Your task to perform on an android device: toggle data saver in the chrome app Image 0: 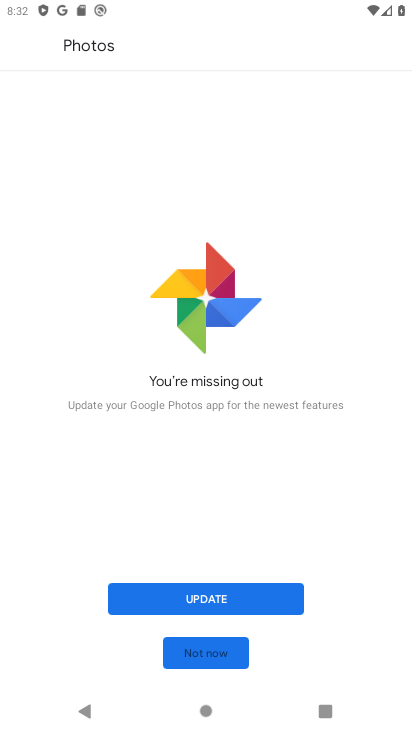
Step 0: click (176, 648)
Your task to perform on an android device: toggle data saver in the chrome app Image 1: 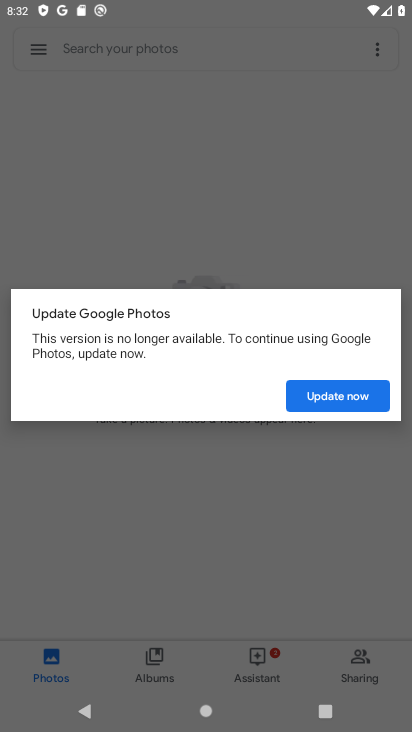
Step 1: click (225, 478)
Your task to perform on an android device: toggle data saver in the chrome app Image 2: 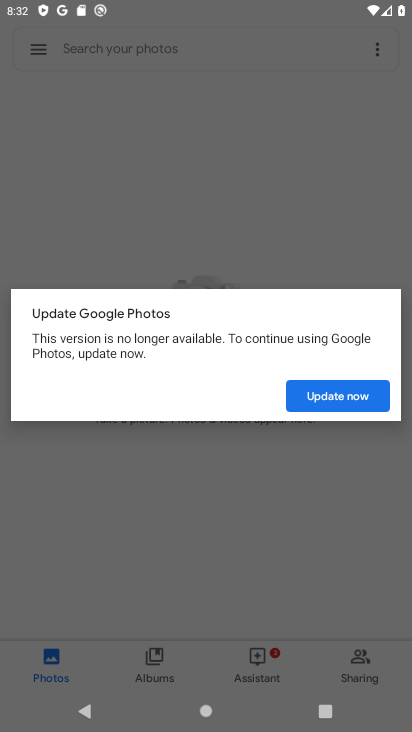
Step 2: click (199, 181)
Your task to perform on an android device: toggle data saver in the chrome app Image 3: 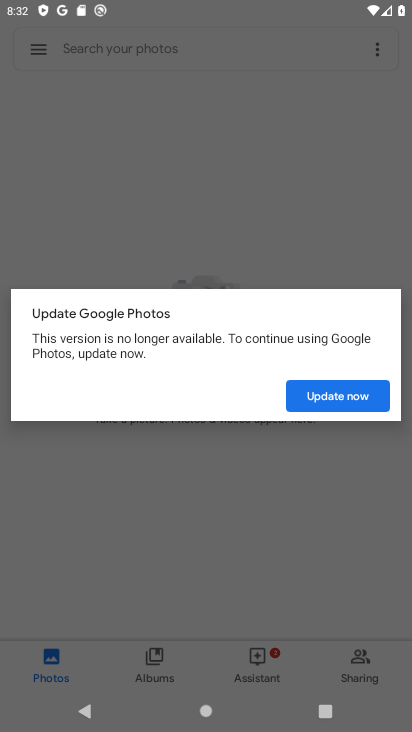
Step 3: click (204, 180)
Your task to perform on an android device: toggle data saver in the chrome app Image 4: 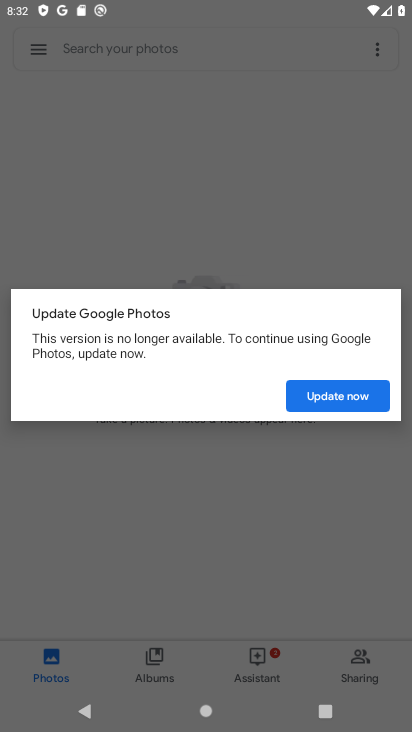
Step 4: drag from (217, 544) to (170, 272)
Your task to perform on an android device: toggle data saver in the chrome app Image 5: 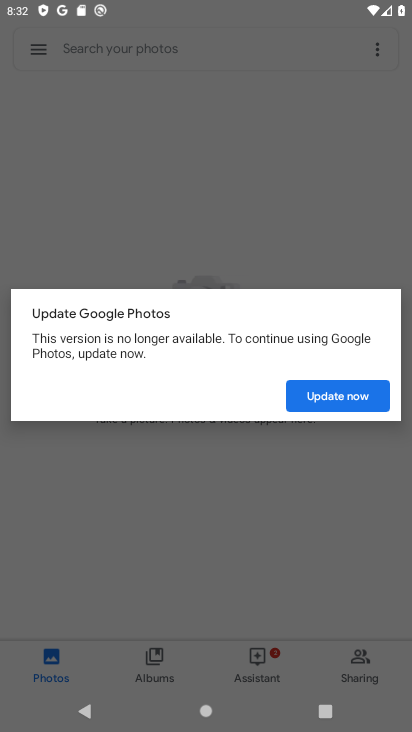
Step 5: drag from (251, 482) to (227, 355)
Your task to perform on an android device: toggle data saver in the chrome app Image 6: 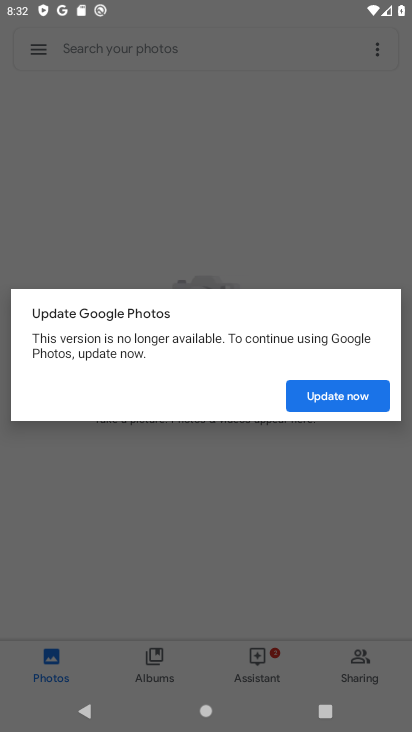
Step 6: press back button
Your task to perform on an android device: toggle data saver in the chrome app Image 7: 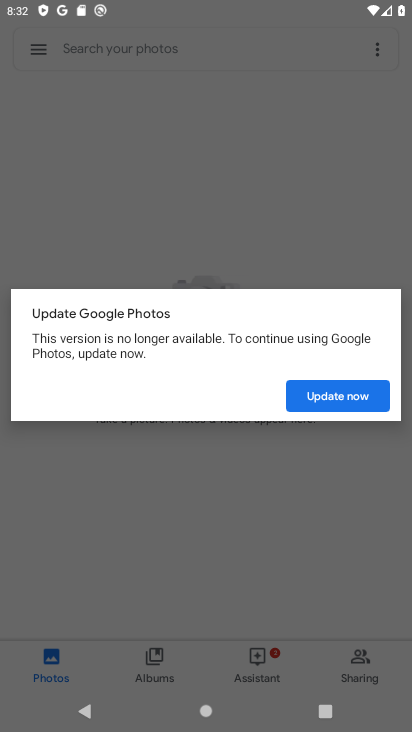
Step 7: press home button
Your task to perform on an android device: toggle data saver in the chrome app Image 8: 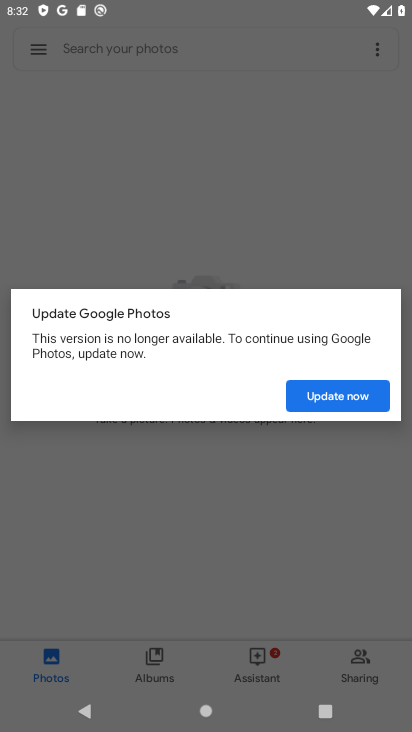
Step 8: press home button
Your task to perform on an android device: toggle data saver in the chrome app Image 9: 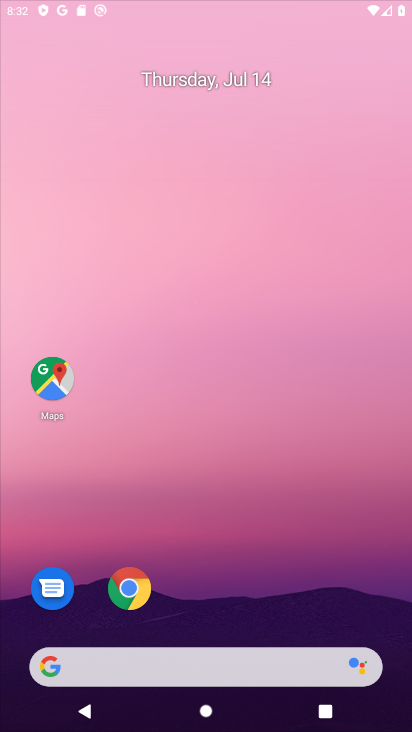
Step 9: press home button
Your task to perform on an android device: toggle data saver in the chrome app Image 10: 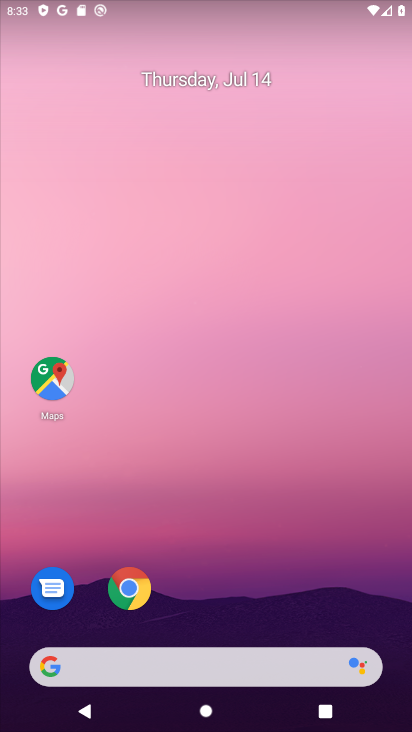
Step 10: drag from (263, 613) to (161, 57)
Your task to perform on an android device: toggle data saver in the chrome app Image 11: 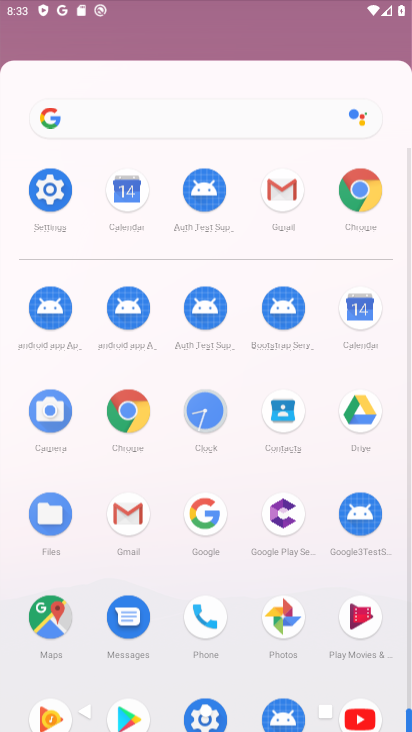
Step 11: drag from (285, 604) to (148, 81)
Your task to perform on an android device: toggle data saver in the chrome app Image 12: 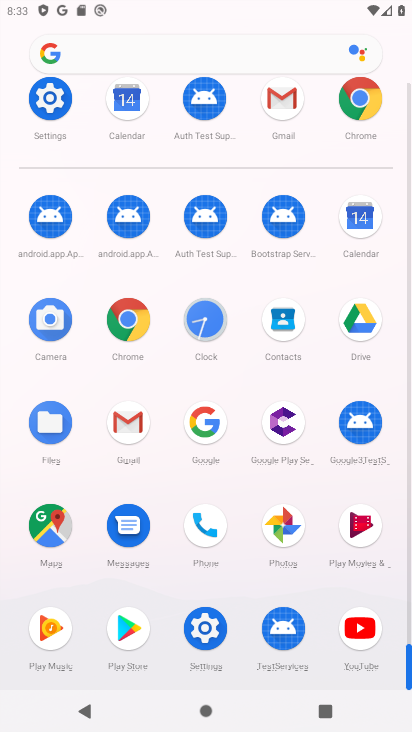
Step 12: click (354, 109)
Your task to perform on an android device: toggle data saver in the chrome app Image 13: 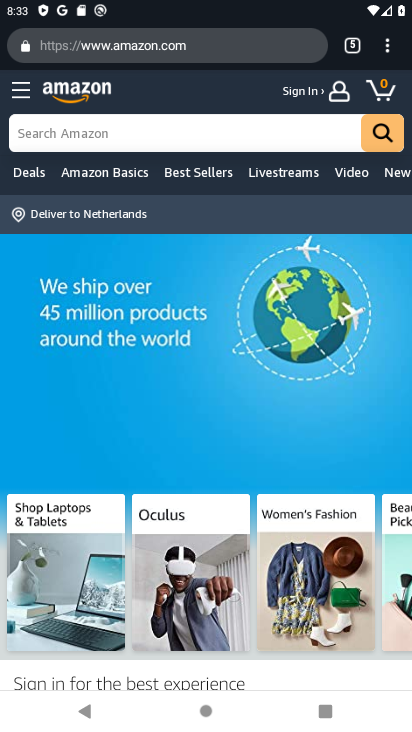
Step 13: drag from (390, 54) to (245, 541)
Your task to perform on an android device: toggle data saver in the chrome app Image 14: 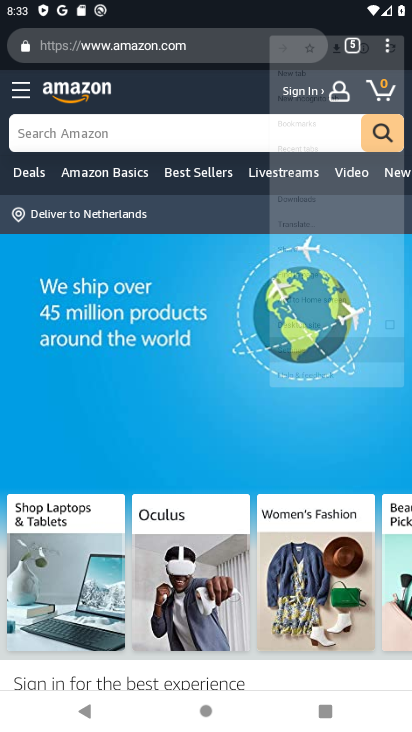
Step 14: click (247, 544)
Your task to perform on an android device: toggle data saver in the chrome app Image 15: 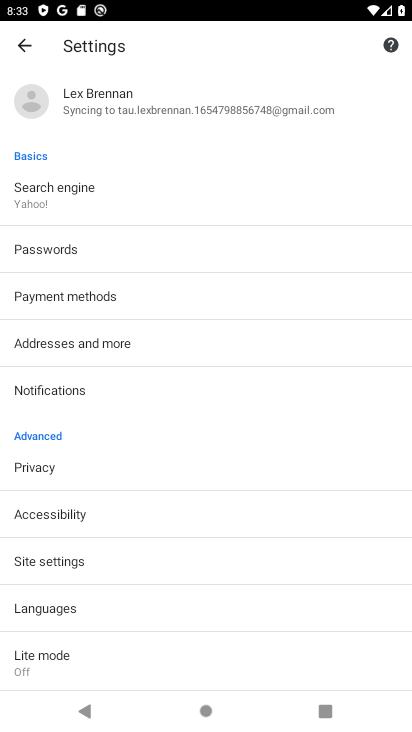
Step 15: click (34, 558)
Your task to perform on an android device: toggle data saver in the chrome app Image 16: 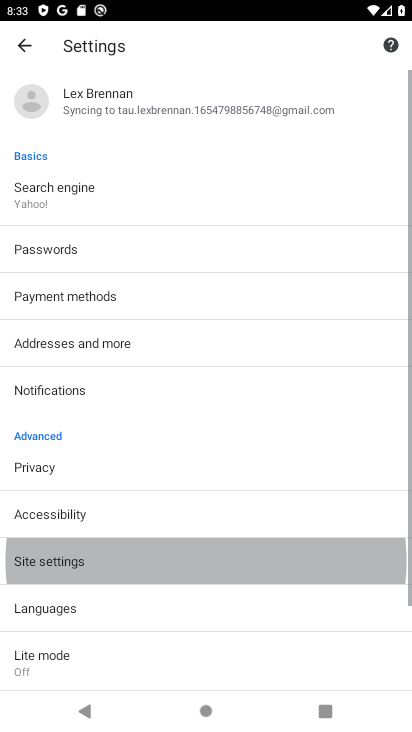
Step 16: click (40, 555)
Your task to perform on an android device: toggle data saver in the chrome app Image 17: 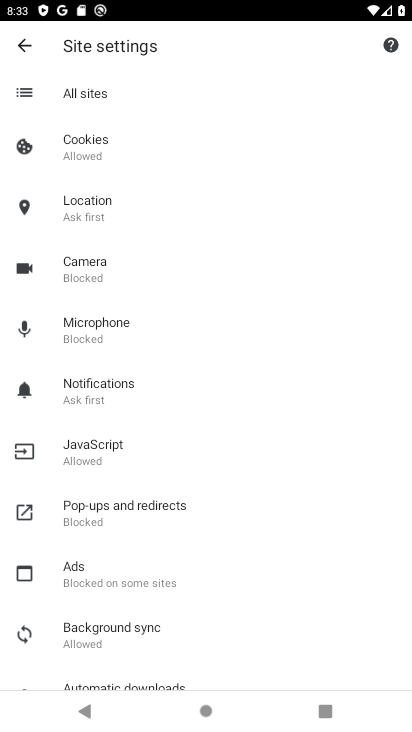
Step 17: drag from (94, 547) to (79, 107)
Your task to perform on an android device: toggle data saver in the chrome app Image 18: 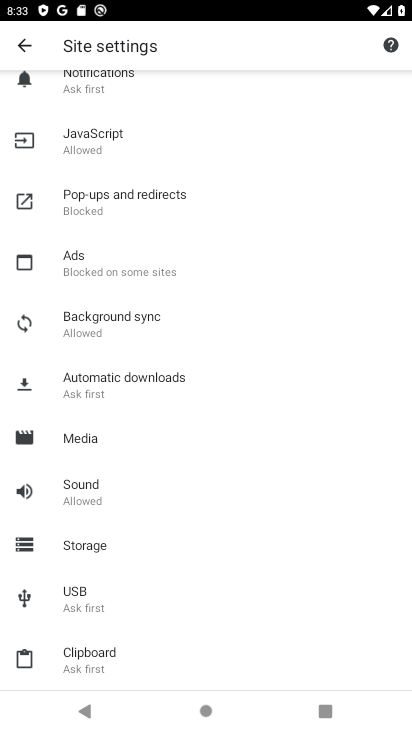
Step 18: click (24, 47)
Your task to perform on an android device: toggle data saver in the chrome app Image 19: 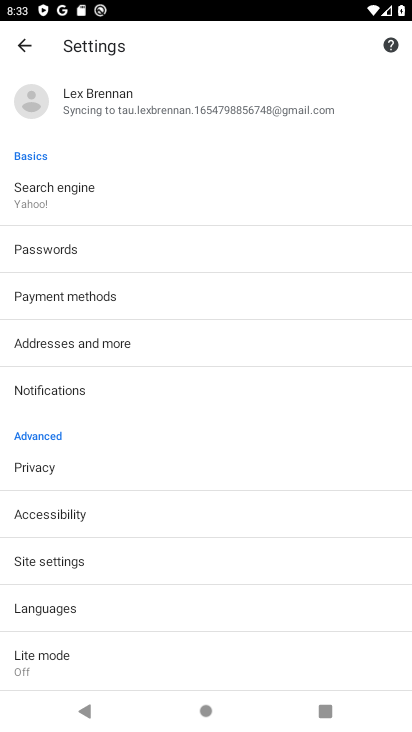
Step 19: click (39, 656)
Your task to perform on an android device: toggle data saver in the chrome app Image 20: 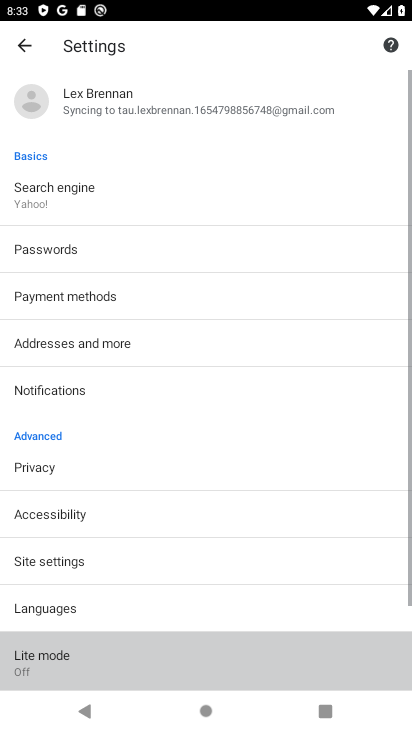
Step 20: click (40, 657)
Your task to perform on an android device: toggle data saver in the chrome app Image 21: 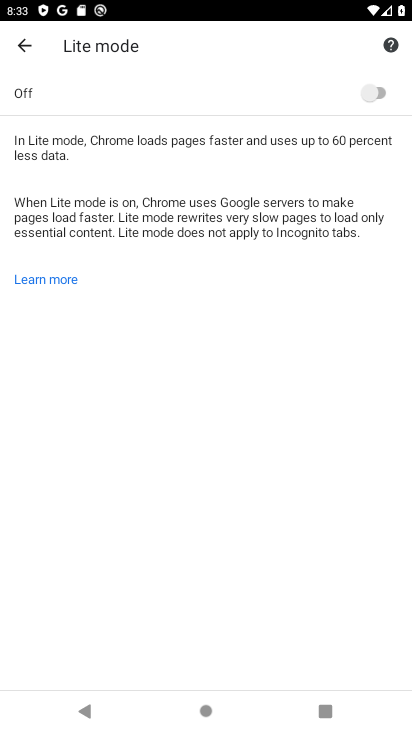
Step 21: click (373, 87)
Your task to perform on an android device: toggle data saver in the chrome app Image 22: 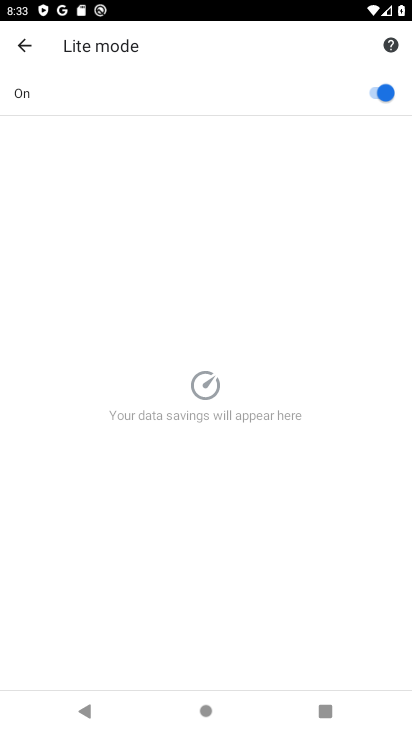
Step 22: task complete